Your task to perform on an android device: toggle pop-ups in chrome Image 0: 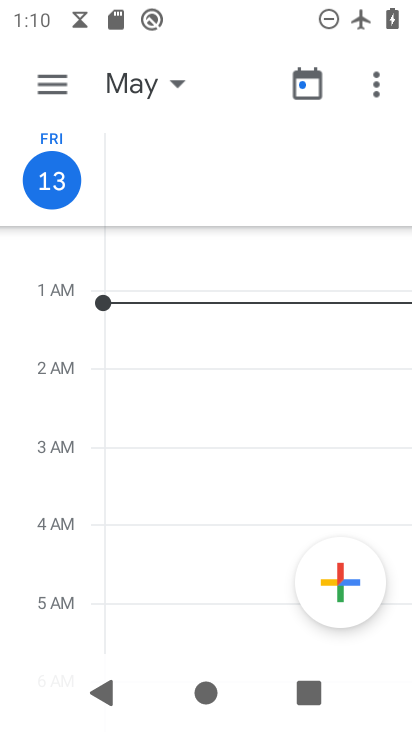
Step 0: drag from (332, 501) to (188, 51)
Your task to perform on an android device: toggle pop-ups in chrome Image 1: 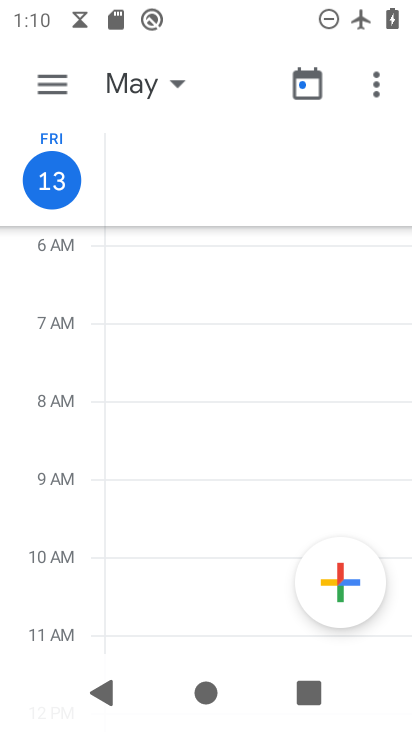
Step 1: press home button
Your task to perform on an android device: toggle pop-ups in chrome Image 2: 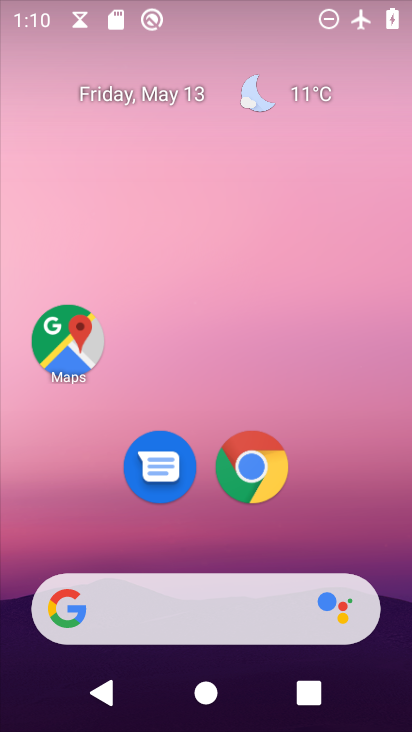
Step 2: click (258, 486)
Your task to perform on an android device: toggle pop-ups in chrome Image 3: 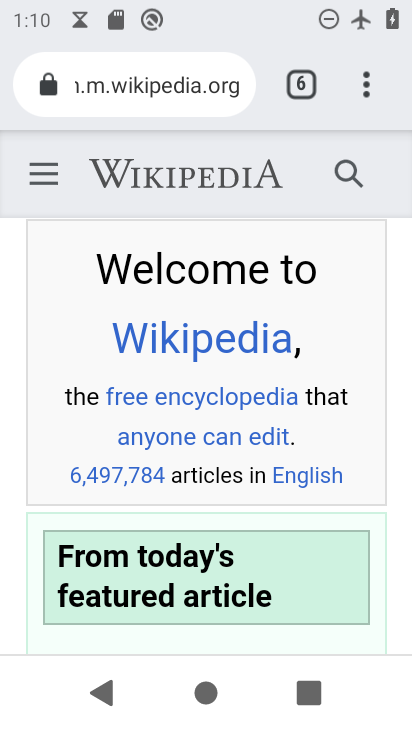
Step 3: click (355, 84)
Your task to perform on an android device: toggle pop-ups in chrome Image 4: 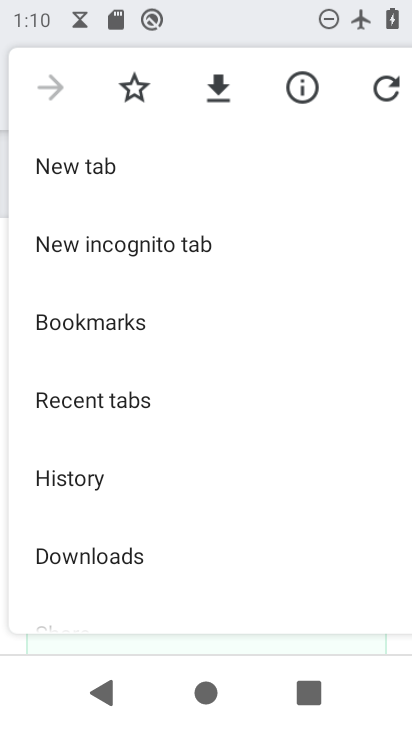
Step 4: drag from (213, 534) to (170, 95)
Your task to perform on an android device: toggle pop-ups in chrome Image 5: 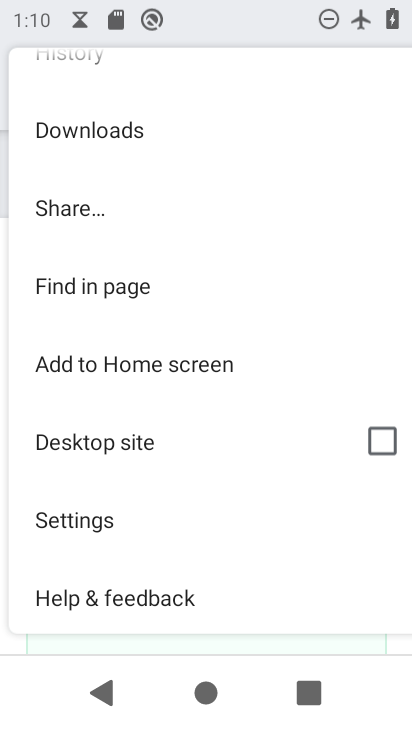
Step 5: click (151, 541)
Your task to perform on an android device: toggle pop-ups in chrome Image 6: 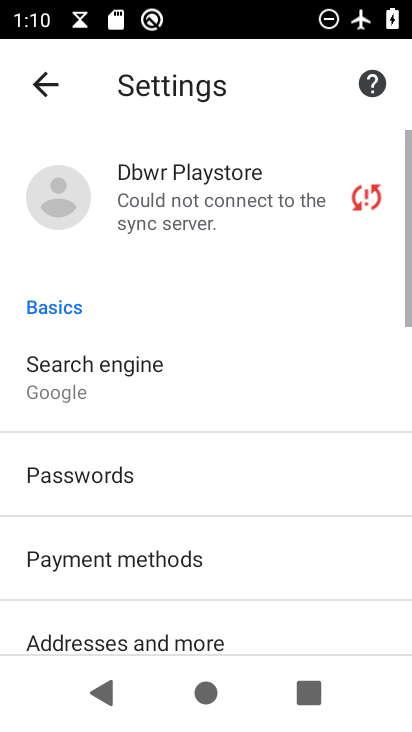
Step 6: drag from (296, 561) to (216, 98)
Your task to perform on an android device: toggle pop-ups in chrome Image 7: 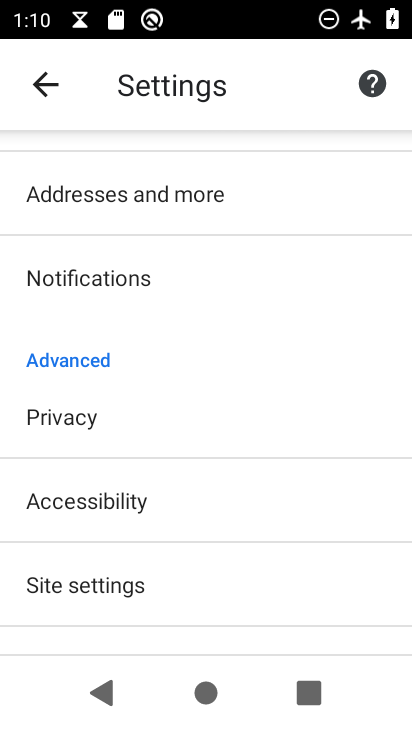
Step 7: click (163, 565)
Your task to perform on an android device: toggle pop-ups in chrome Image 8: 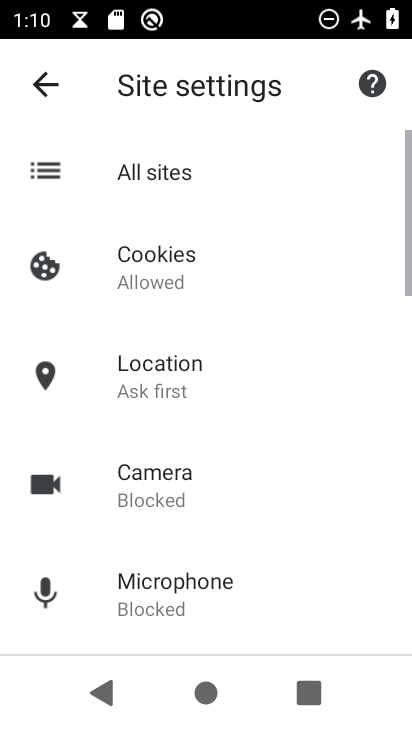
Step 8: drag from (248, 525) to (219, 107)
Your task to perform on an android device: toggle pop-ups in chrome Image 9: 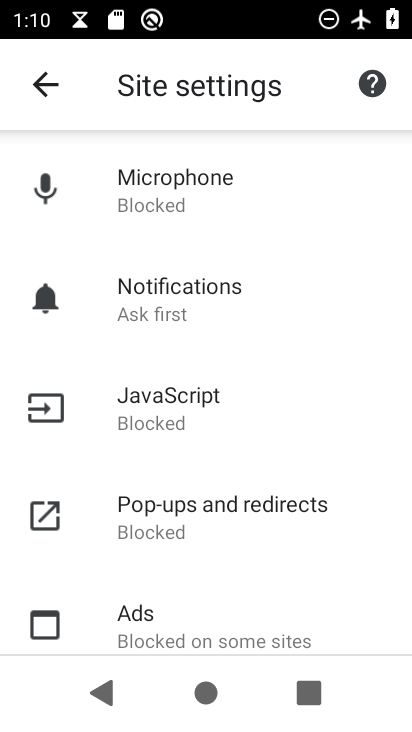
Step 9: click (242, 499)
Your task to perform on an android device: toggle pop-ups in chrome Image 10: 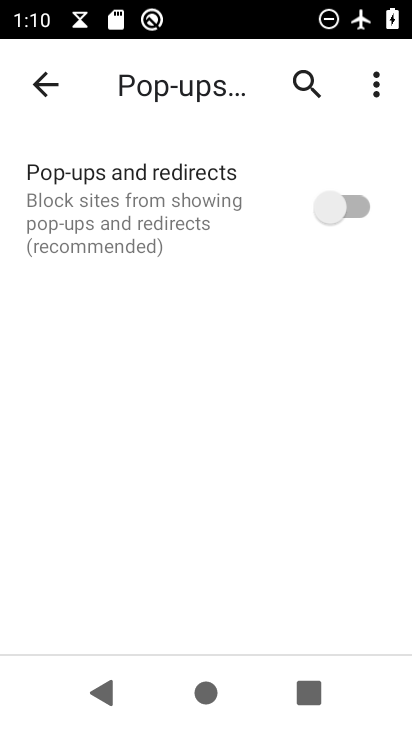
Step 10: click (349, 199)
Your task to perform on an android device: toggle pop-ups in chrome Image 11: 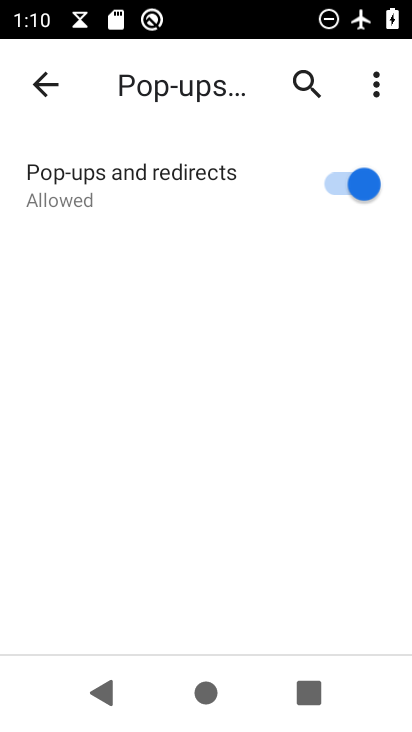
Step 11: task complete